Your task to perform on an android device: set the timer Image 0: 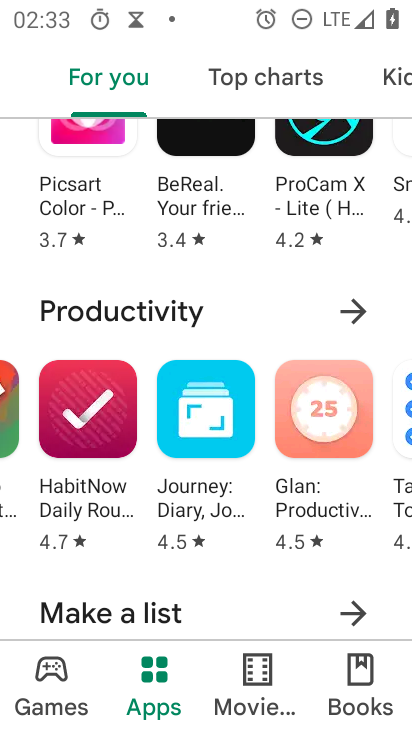
Step 0: press home button
Your task to perform on an android device: set the timer Image 1: 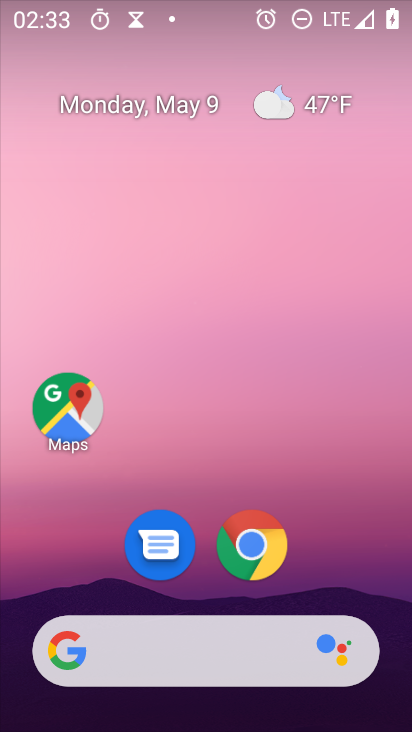
Step 1: click (409, 532)
Your task to perform on an android device: set the timer Image 2: 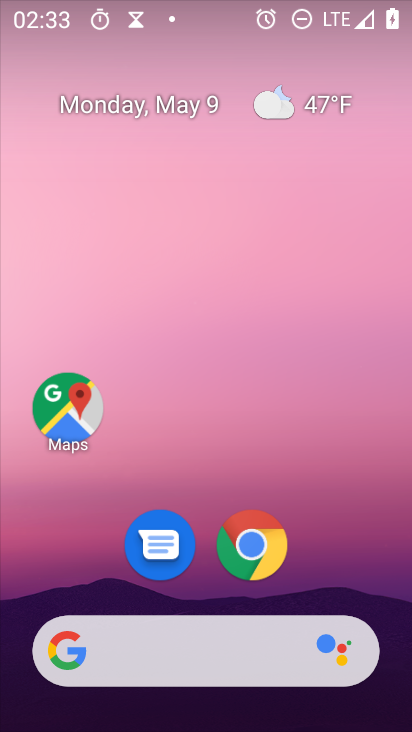
Step 2: drag from (335, 609) to (315, 2)
Your task to perform on an android device: set the timer Image 3: 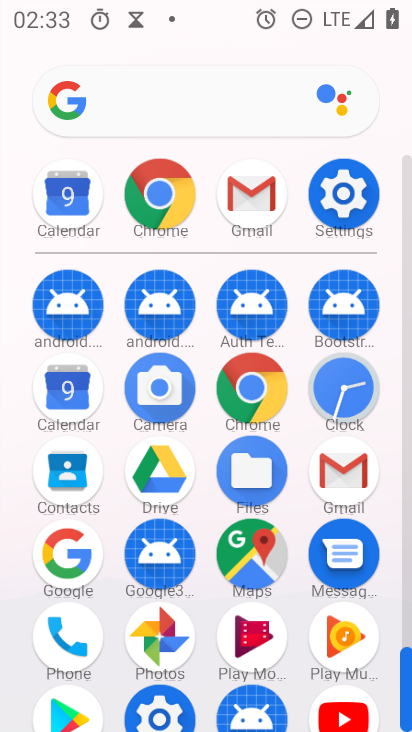
Step 3: click (345, 378)
Your task to perform on an android device: set the timer Image 4: 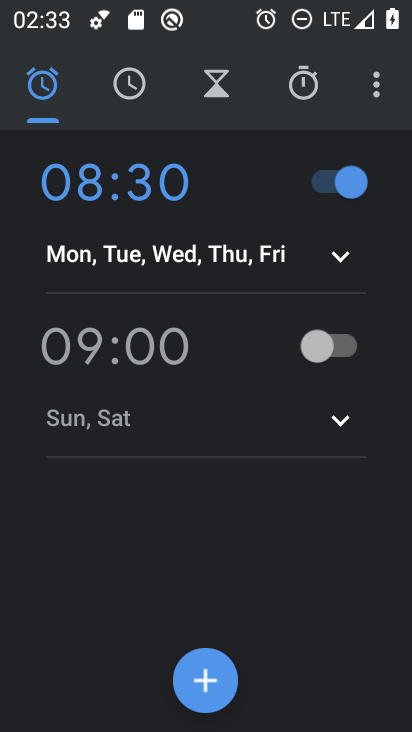
Step 4: click (193, 91)
Your task to perform on an android device: set the timer Image 5: 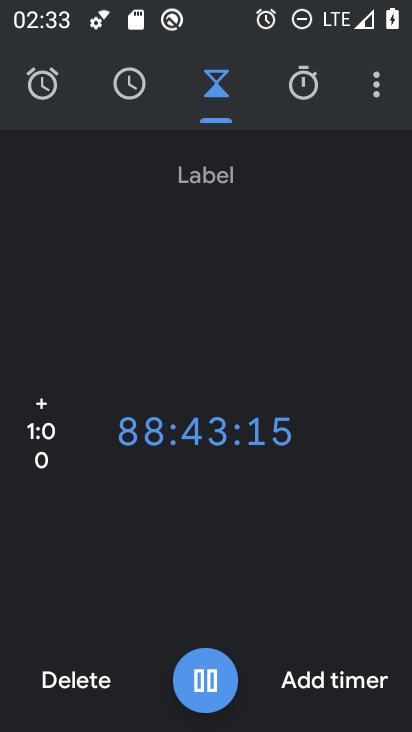
Step 5: click (91, 685)
Your task to perform on an android device: set the timer Image 6: 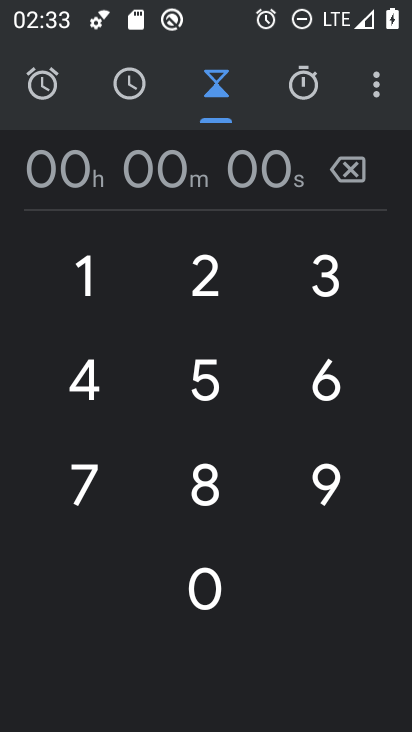
Step 6: click (197, 499)
Your task to perform on an android device: set the timer Image 7: 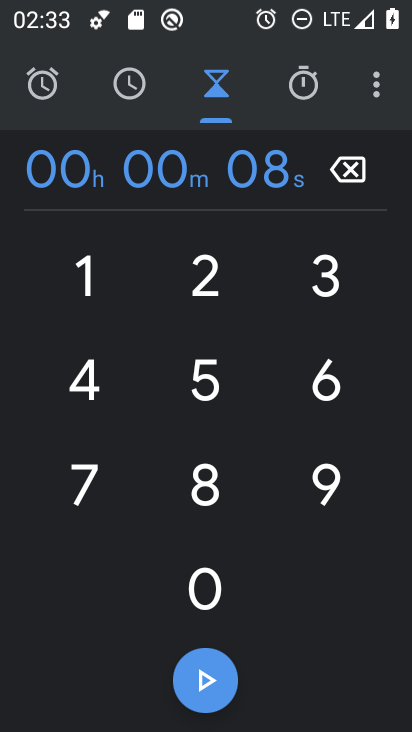
Step 7: click (323, 377)
Your task to perform on an android device: set the timer Image 8: 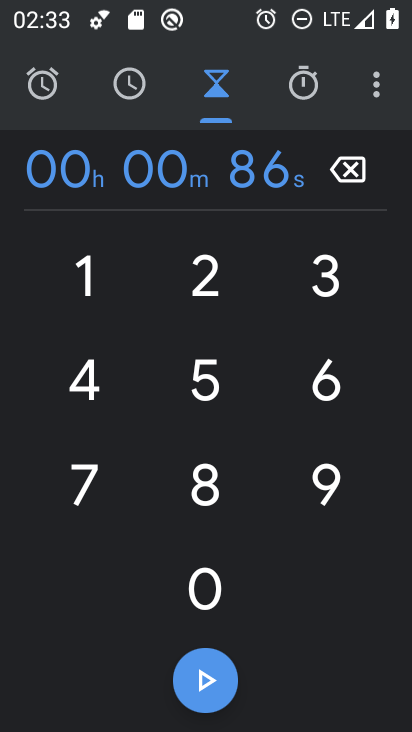
Step 8: click (204, 389)
Your task to perform on an android device: set the timer Image 9: 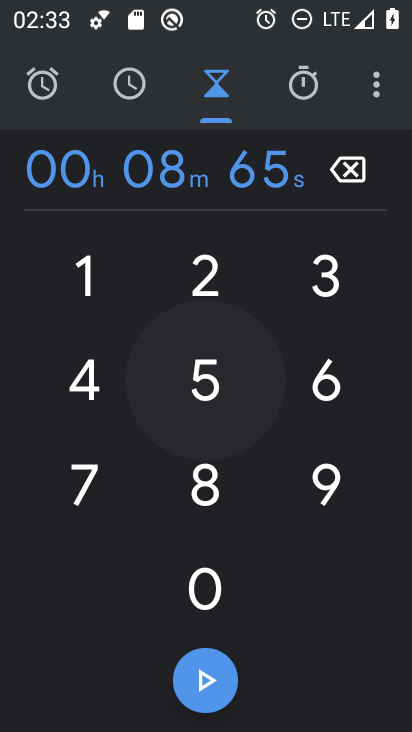
Step 9: click (205, 295)
Your task to perform on an android device: set the timer Image 10: 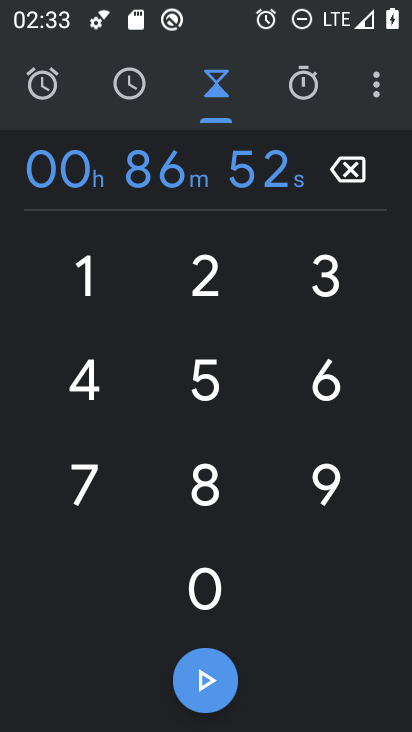
Step 10: click (321, 266)
Your task to perform on an android device: set the timer Image 11: 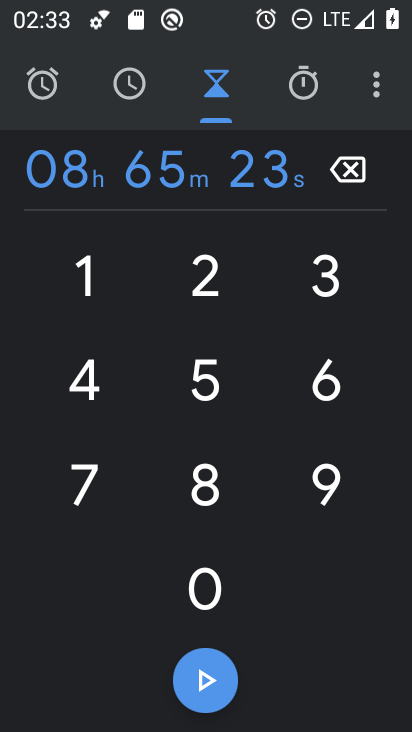
Step 11: click (96, 293)
Your task to perform on an android device: set the timer Image 12: 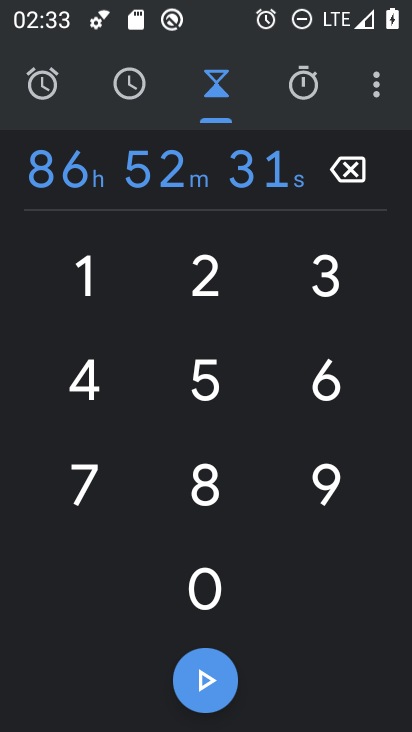
Step 12: click (201, 666)
Your task to perform on an android device: set the timer Image 13: 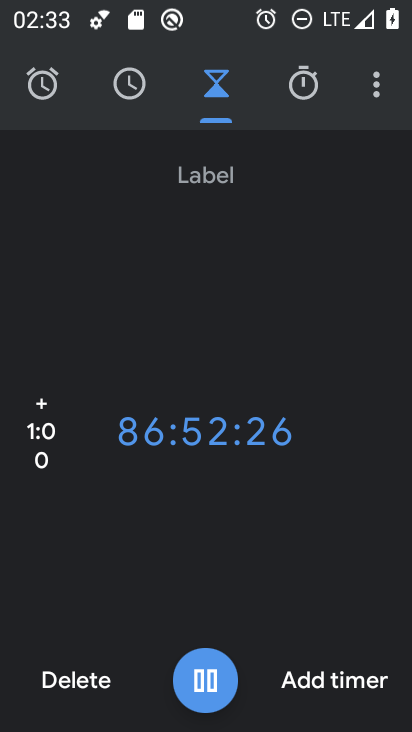
Step 13: task complete